Your task to perform on an android device: turn on javascript in the chrome app Image 0: 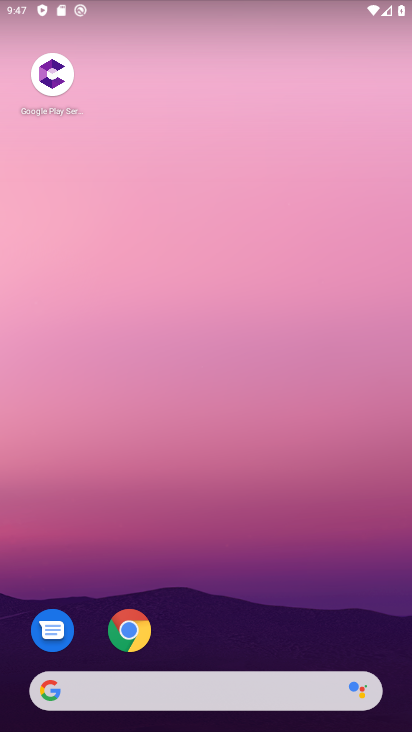
Step 0: drag from (270, 389) to (324, 12)
Your task to perform on an android device: turn on javascript in the chrome app Image 1: 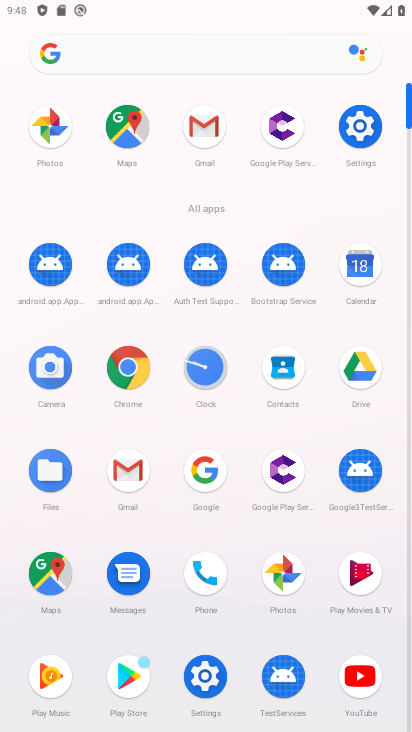
Step 1: click (130, 378)
Your task to perform on an android device: turn on javascript in the chrome app Image 2: 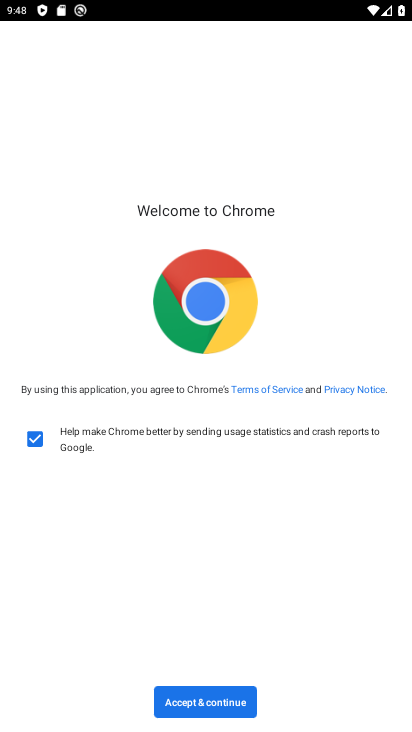
Step 2: click (174, 706)
Your task to perform on an android device: turn on javascript in the chrome app Image 3: 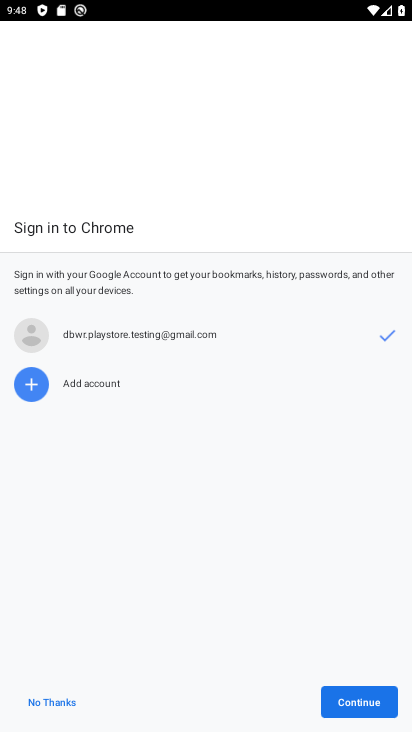
Step 3: click (51, 691)
Your task to perform on an android device: turn on javascript in the chrome app Image 4: 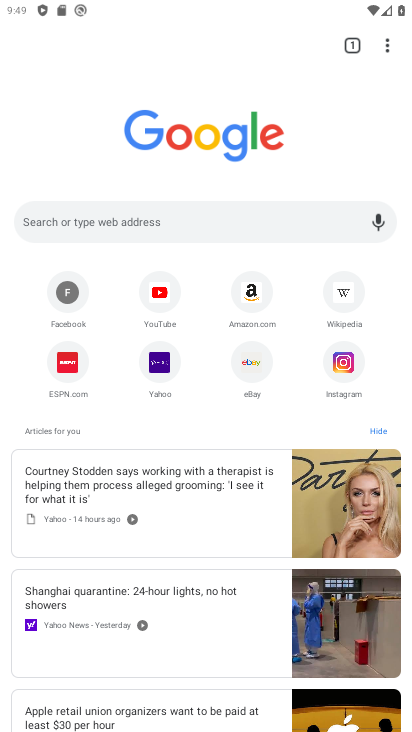
Step 4: click (394, 53)
Your task to perform on an android device: turn on javascript in the chrome app Image 5: 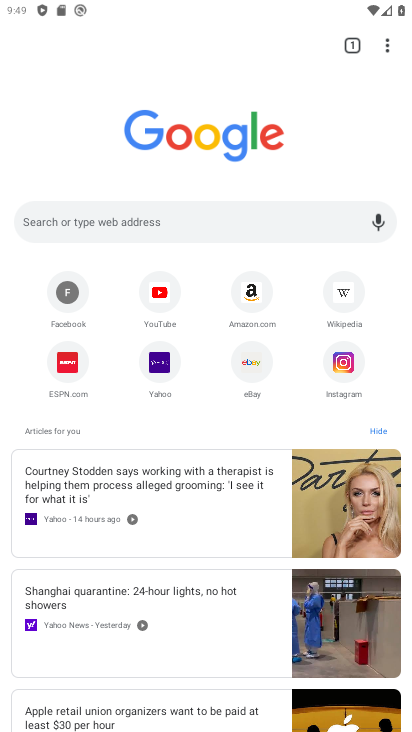
Step 5: click (394, 51)
Your task to perform on an android device: turn on javascript in the chrome app Image 6: 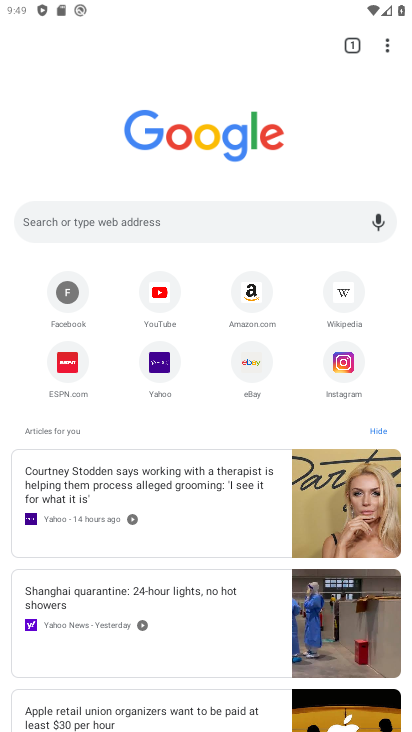
Step 6: drag from (384, 42) to (223, 392)
Your task to perform on an android device: turn on javascript in the chrome app Image 7: 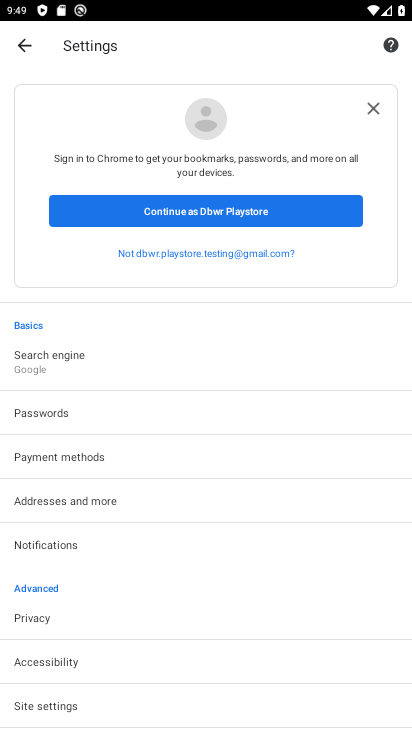
Step 7: drag from (167, 622) to (208, 254)
Your task to perform on an android device: turn on javascript in the chrome app Image 8: 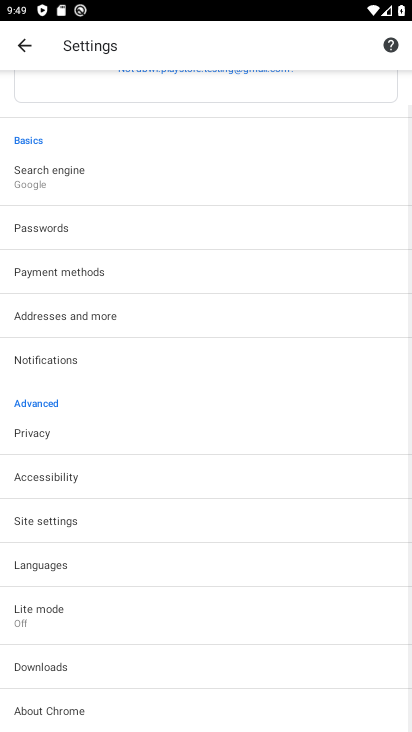
Step 8: drag from (176, 469) to (157, 282)
Your task to perform on an android device: turn on javascript in the chrome app Image 9: 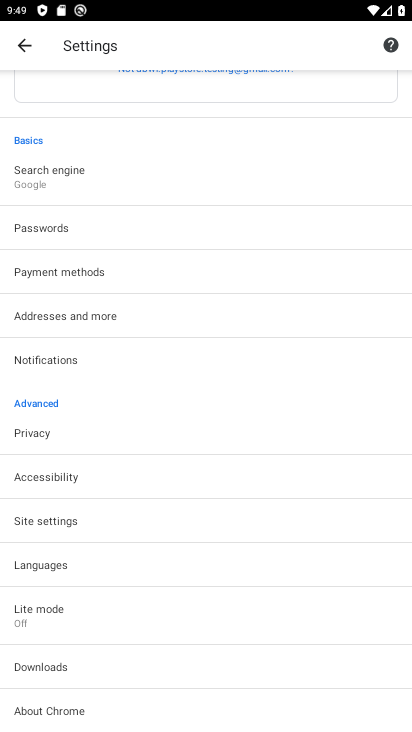
Step 9: drag from (203, 599) to (196, 218)
Your task to perform on an android device: turn on javascript in the chrome app Image 10: 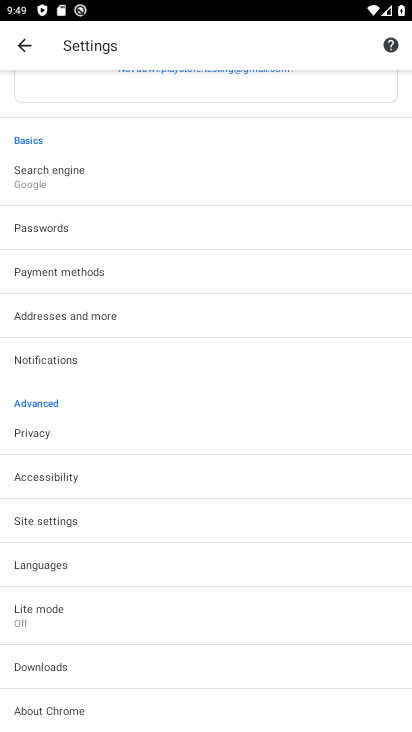
Step 10: drag from (179, 643) to (228, 291)
Your task to perform on an android device: turn on javascript in the chrome app Image 11: 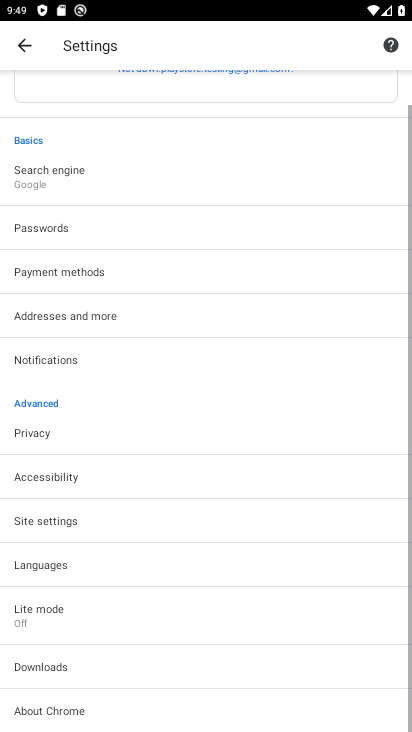
Step 11: click (56, 521)
Your task to perform on an android device: turn on javascript in the chrome app Image 12: 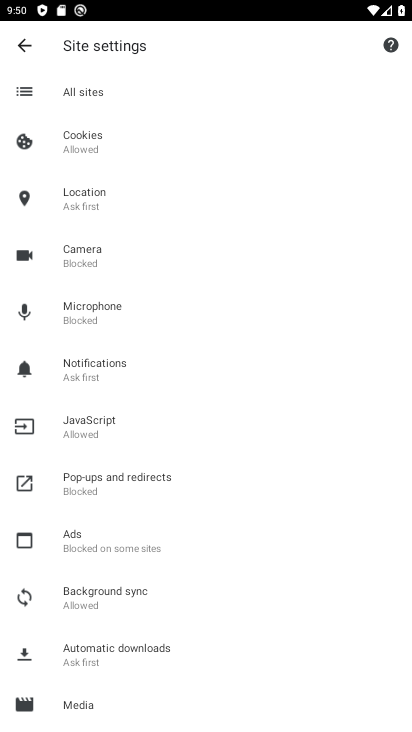
Step 12: click (74, 436)
Your task to perform on an android device: turn on javascript in the chrome app Image 13: 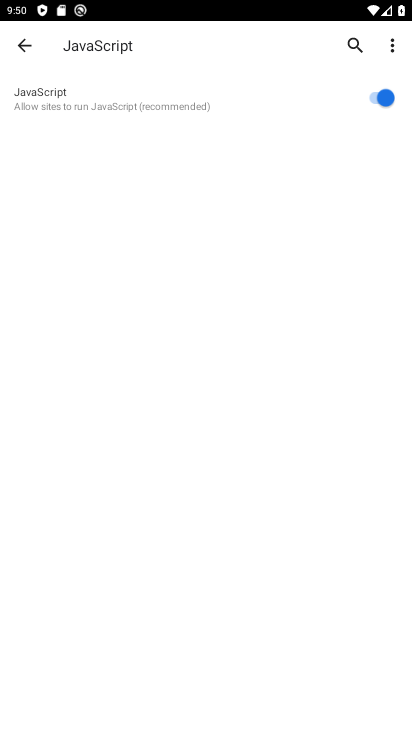
Step 13: task complete